Your task to perform on an android device: add a contact Image 0: 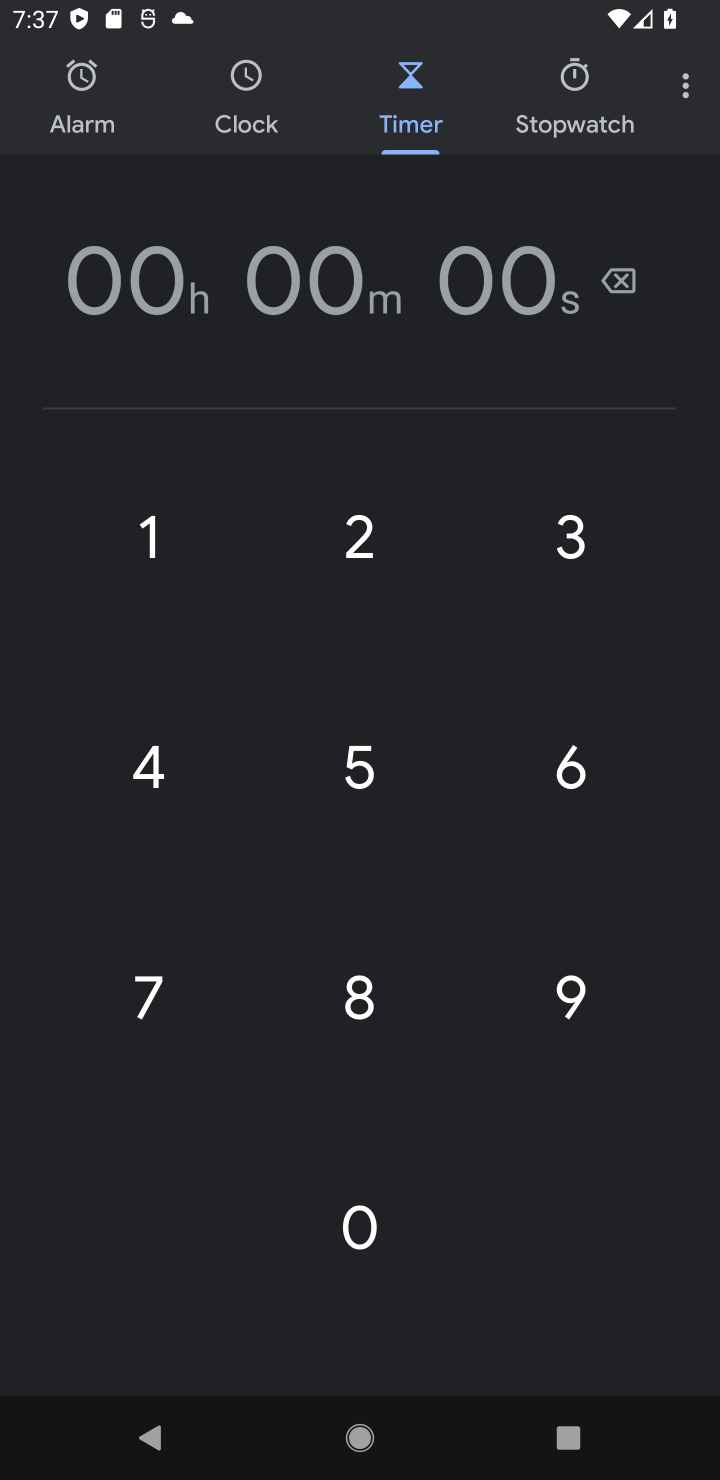
Step 0: task complete